Your task to perform on an android device: Open calendar and show me the second week of next month Image 0: 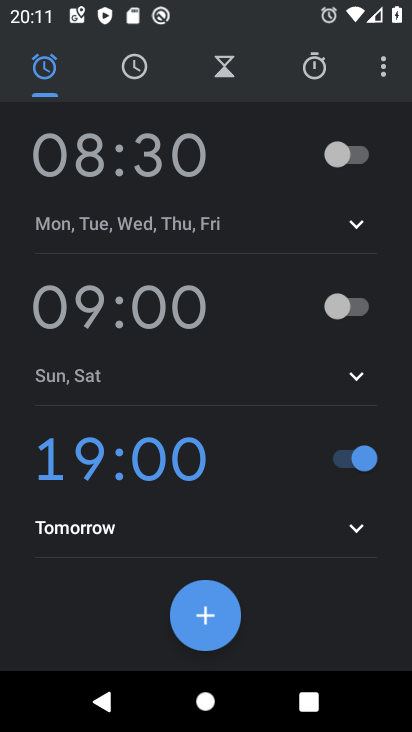
Step 0: press home button
Your task to perform on an android device: Open calendar and show me the second week of next month Image 1: 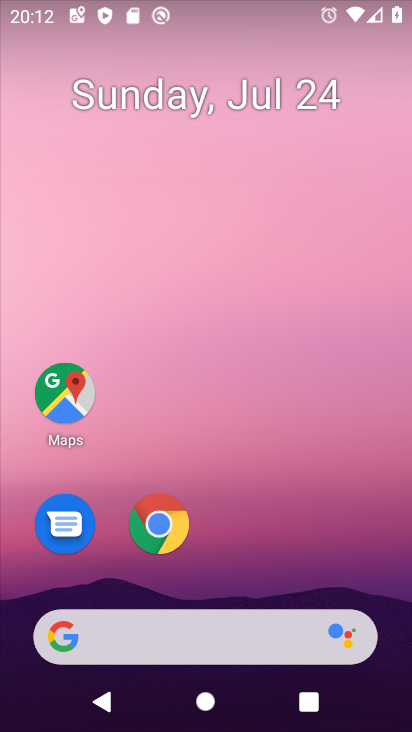
Step 1: drag from (265, 548) to (235, 21)
Your task to perform on an android device: Open calendar and show me the second week of next month Image 2: 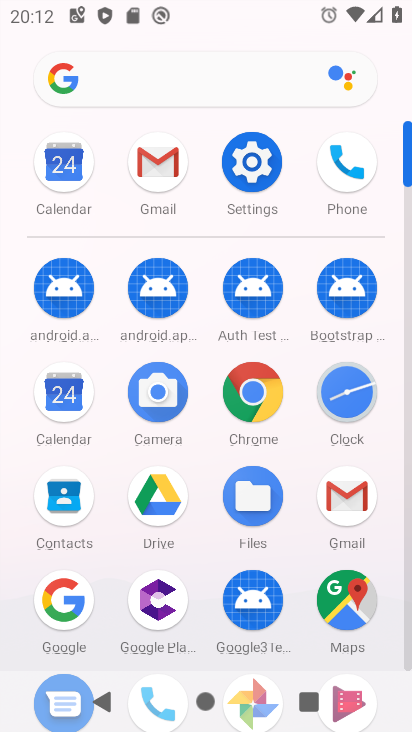
Step 2: click (63, 170)
Your task to perform on an android device: Open calendar and show me the second week of next month Image 3: 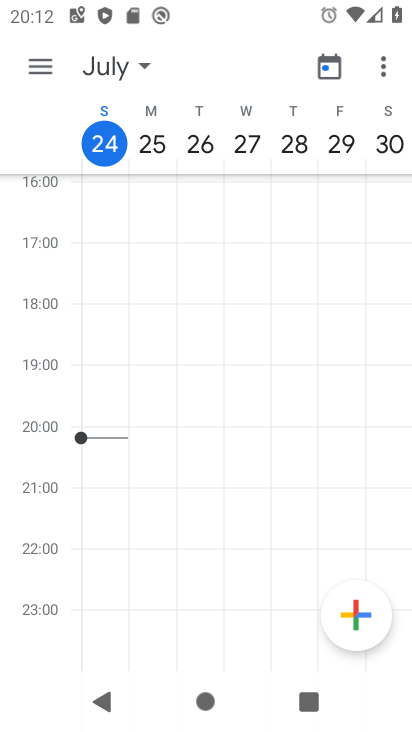
Step 3: task complete